Your task to perform on an android device: turn vacation reply on in the gmail app Image 0: 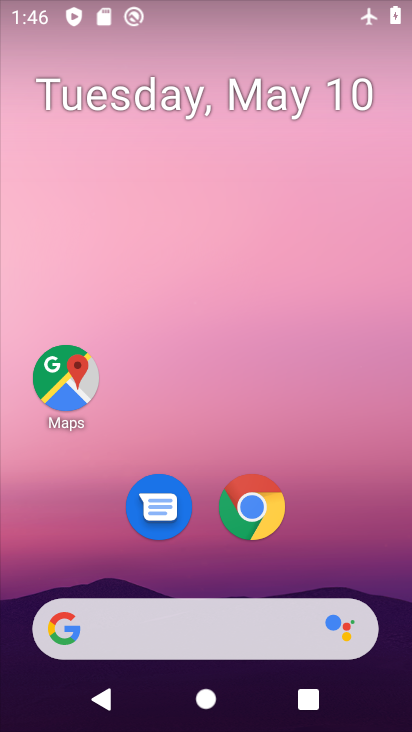
Step 0: drag from (325, 537) to (276, 188)
Your task to perform on an android device: turn vacation reply on in the gmail app Image 1: 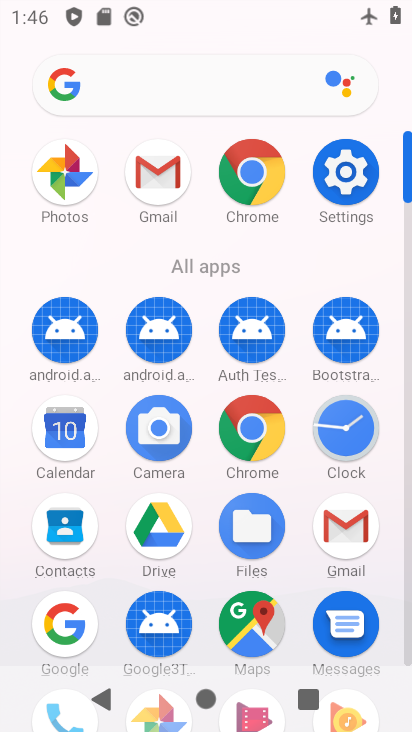
Step 1: click (351, 535)
Your task to perform on an android device: turn vacation reply on in the gmail app Image 2: 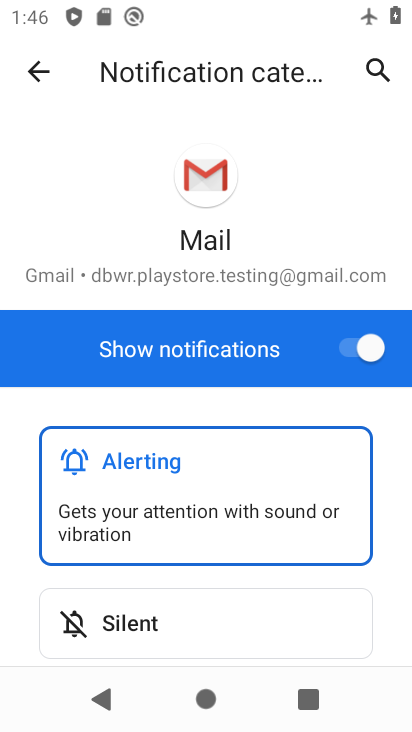
Step 2: press back button
Your task to perform on an android device: turn vacation reply on in the gmail app Image 3: 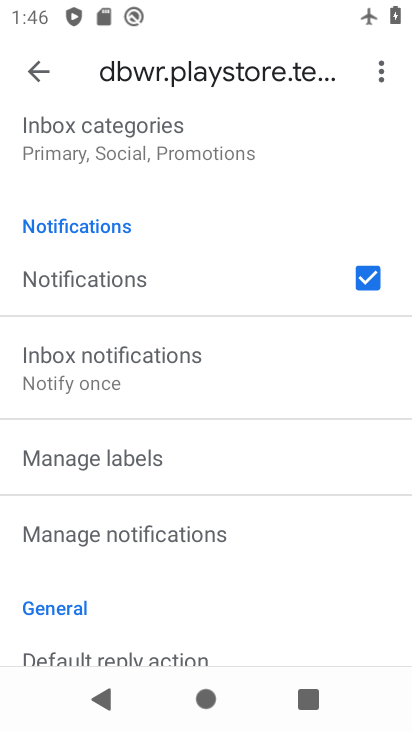
Step 3: drag from (245, 618) to (245, 186)
Your task to perform on an android device: turn vacation reply on in the gmail app Image 4: 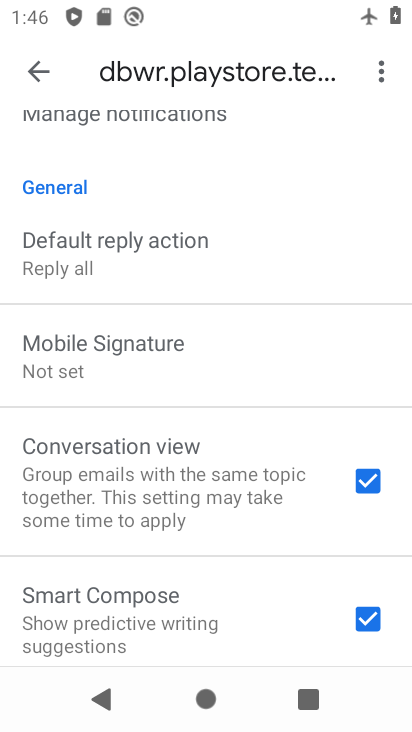
Step 4: drag from (164, 589) to (196, 292)
Your task to perform on an android device: turn vacation reply on in the gmail app Image 5: 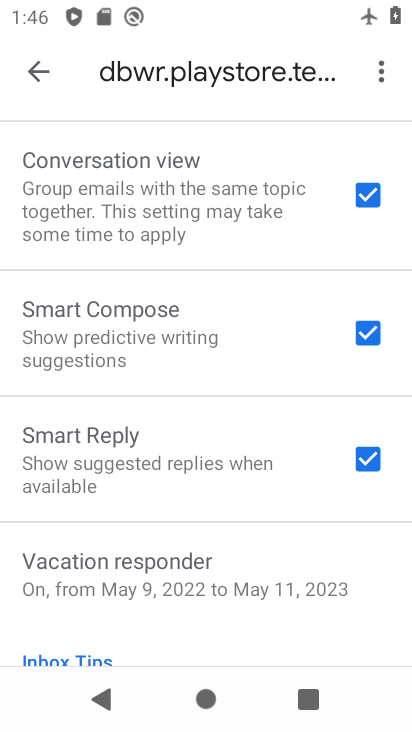
Step 5: click (180, 576)
Your task to perform on an android device: turn vacation reply on in the gmail app Image 6: 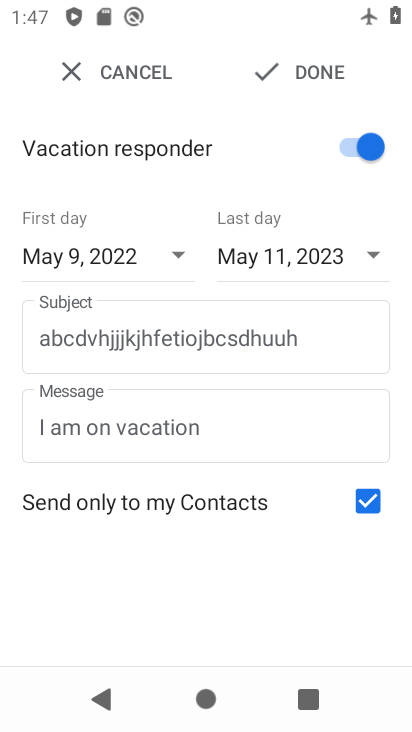
Step 6: task complete